Your task to perform on an android device: Go to accessibility settings Image 0: 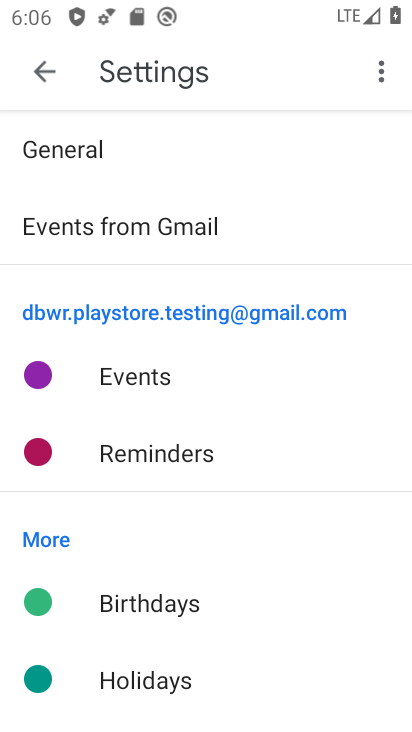
Step 0: press home button
Your task to perform on an android device: Go to accessibility settings Image 1: 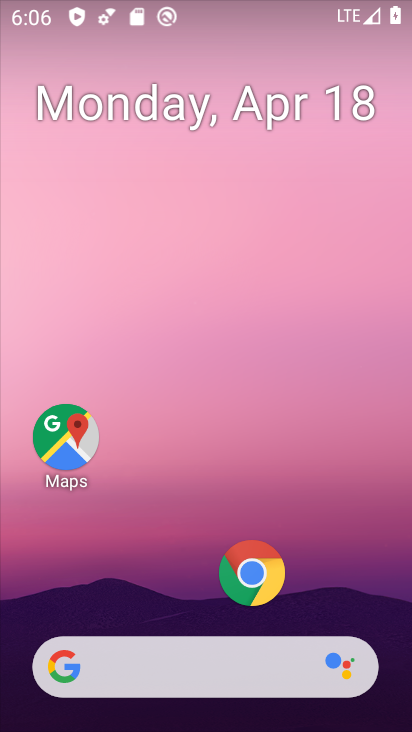
Step 1: drag from (169, 579) to (241, 12)
Your task to perform on an android device: Go to accessibility settings Image 2: 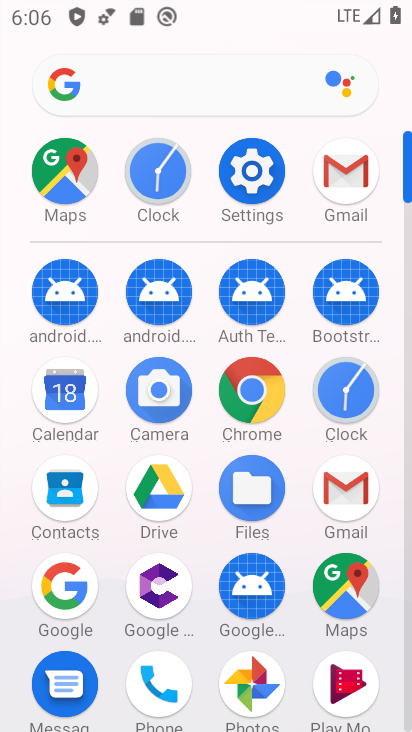
Step 2: click (257, 185)
Your task to perform on an android device: Go to accessibility settings Image 3: 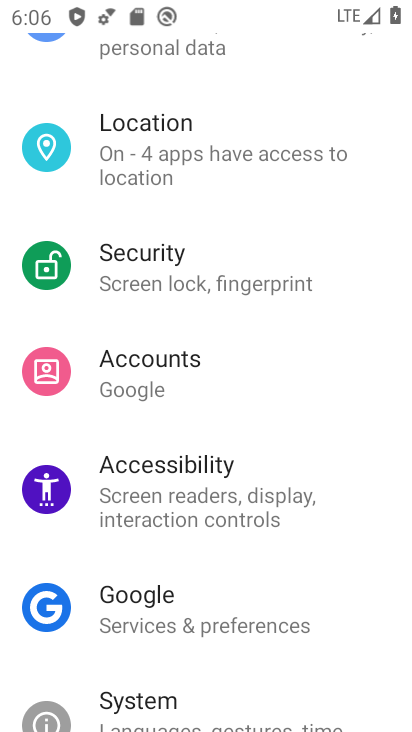
Step 3: click (193, 473)
Your task to perform on an android device: Go to accessibility settings Image 4: 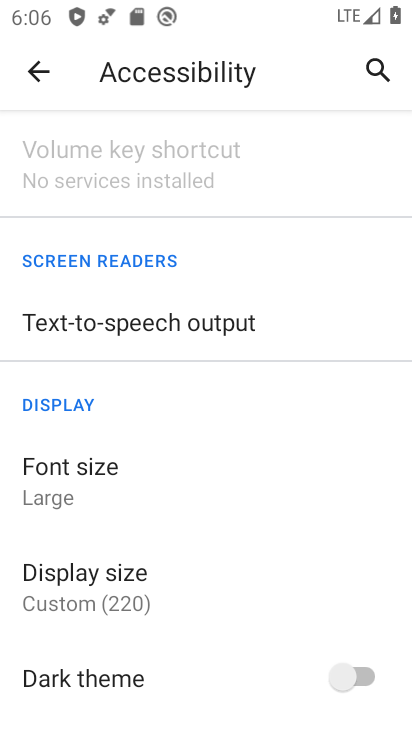
Step 4: task complete